Your task to perform on an android device: turn off notifications in google photos Image 0: 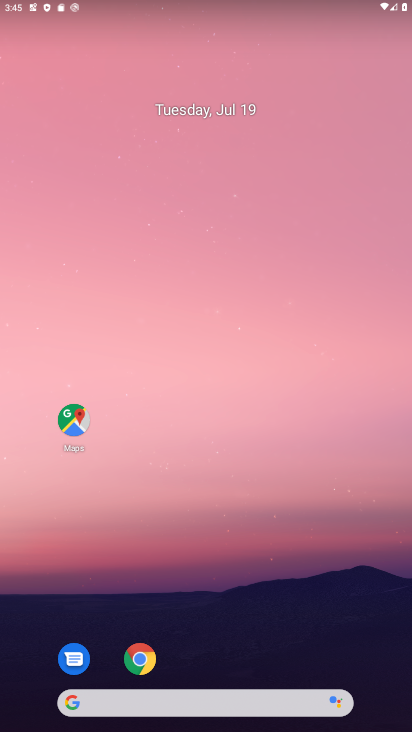
Step 0: drag from (242, 620) to (74, 0)
Your task to perform on an android device: turn off notifications in google photos Image 1: 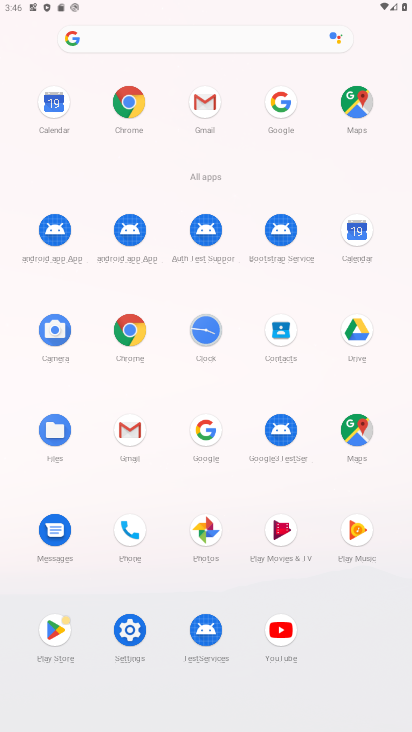
Step 1: click (203, 535)
Your task to perform on an android device: turn off notifications in google photos Image 2: 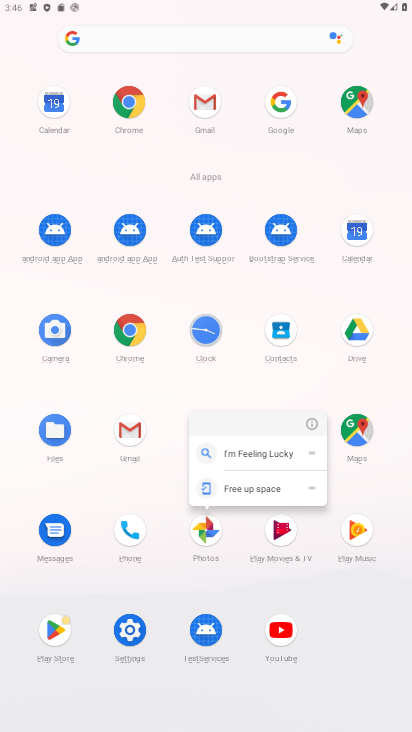
Step 2: click (167, 553)
Your task to perform on an android device: turn off notifications in google photos Image 3: 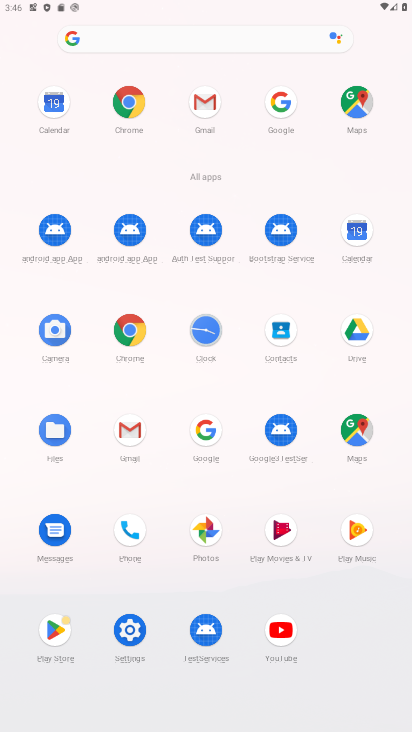
Step 3: click (201, 534)
Your task to perform on an android device: turn off notifications in google photos Image 4: 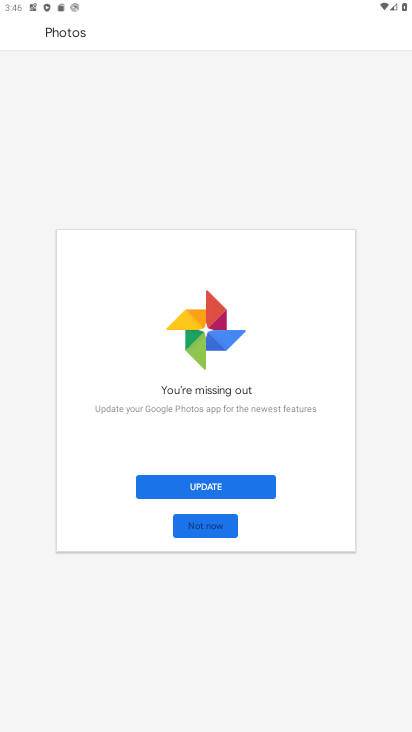
Step 4: click (193, 480)
Your task to perform on an android device: turn off notifications in google photos Image 5: 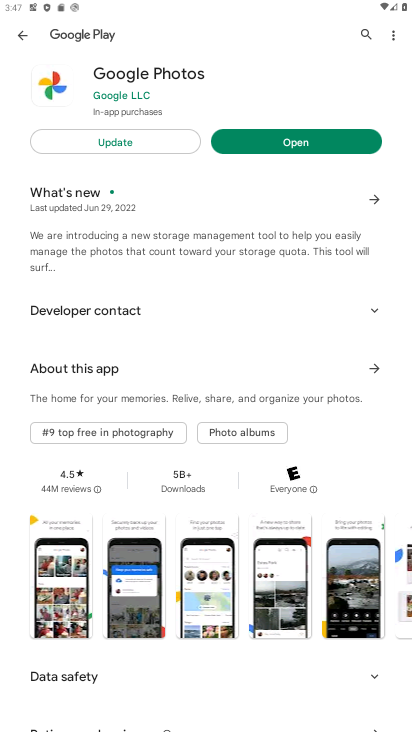
Step 5: click (119, 133)
Your task to perform on an android device: turn off notifications in google photos Image 6: 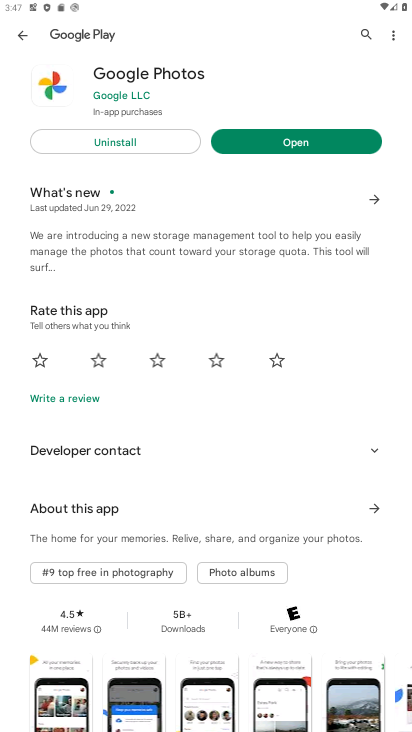
Step 6: click (274, 141)
Your task to perform on an android device: turn off notifications in google photos Image 7: 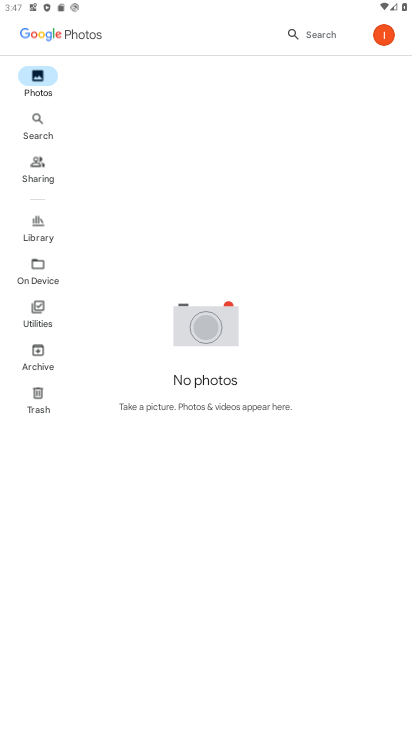
Step 7: task complete